Your task to perform on an android device: open app "Google Keep" (install if not already installed) Image 0: 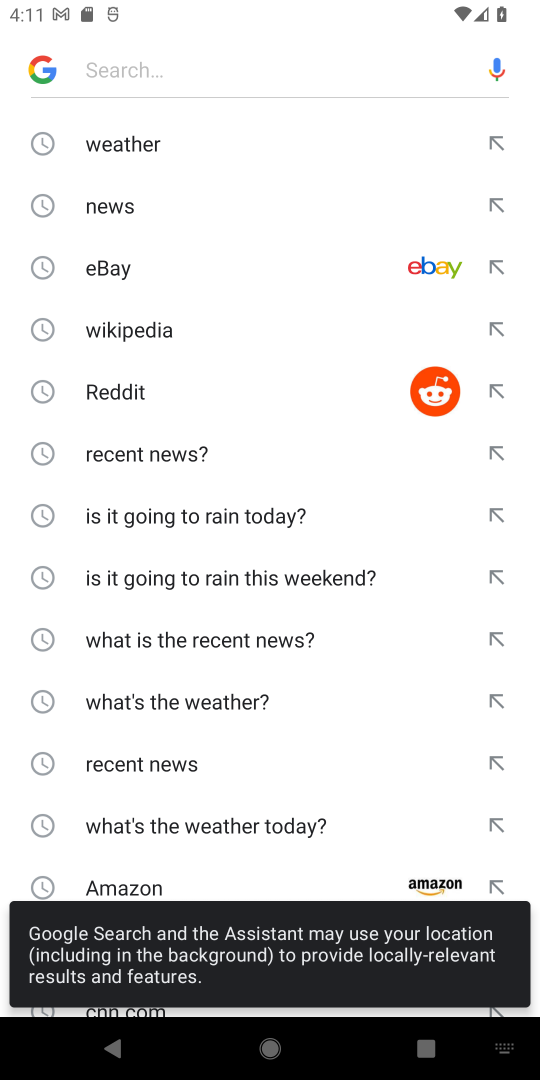
Step 0: press home button
Your task to perform on an android device: open app "Google Keep" (install if not already installed) Image 1: 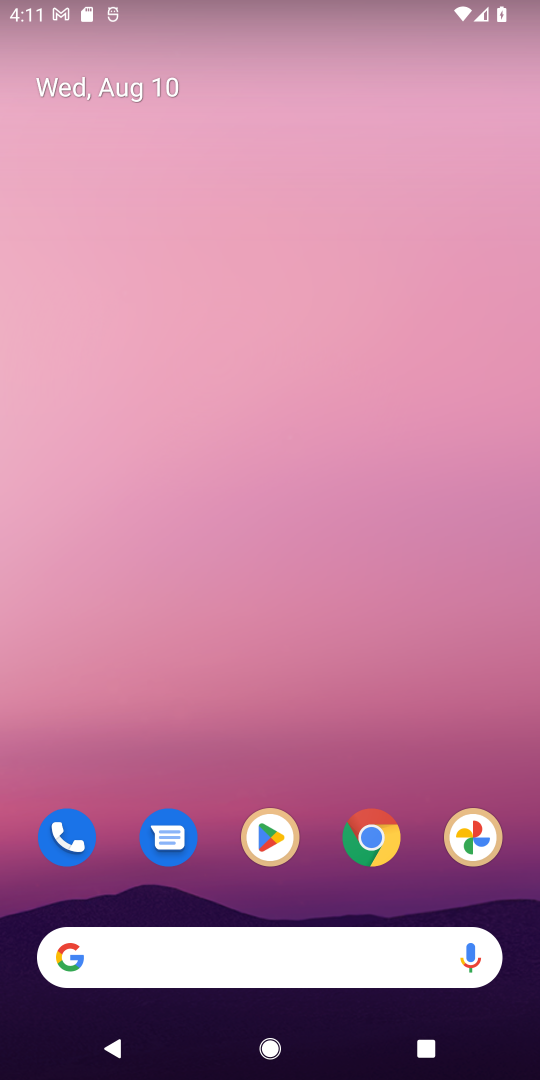
Step 1: click (282, 839)
Your task to perform on an android device: open app "Google Keep" (install if not already installed) Image 2: 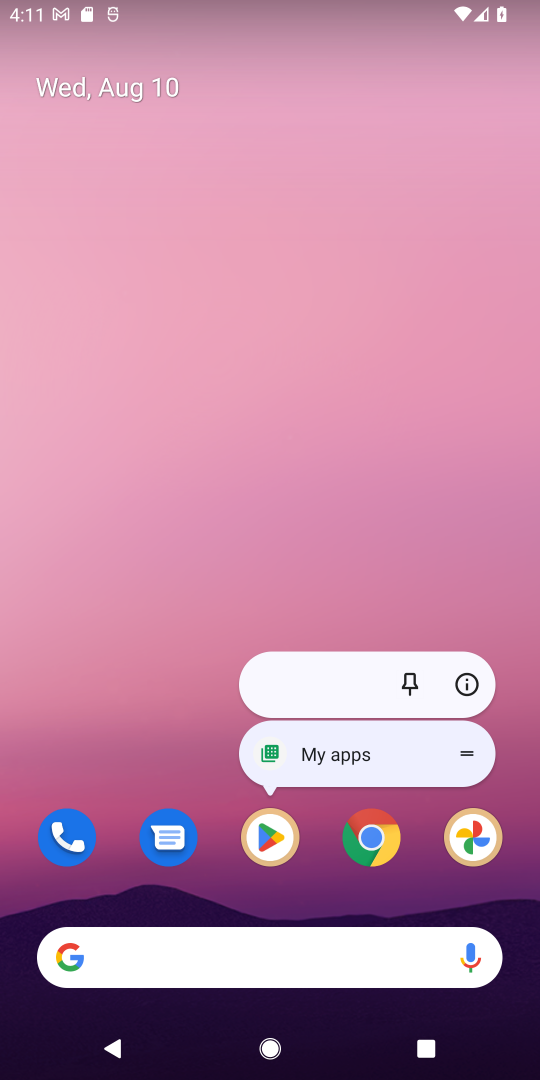
Step 2: click (282, 839)
Your task to perform on an android device: open app "Google Keep" (install if not already installed) Image 3: 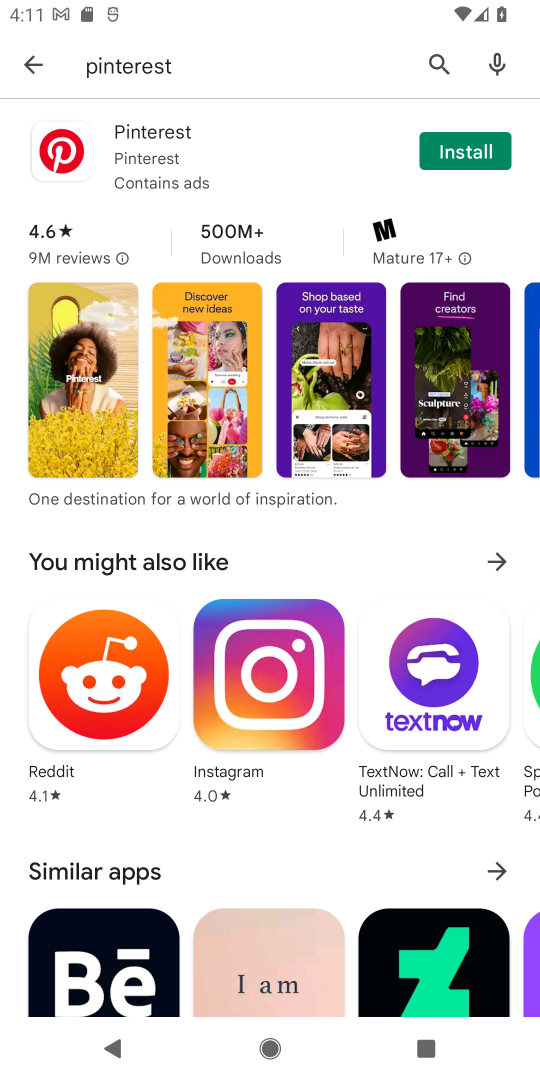
Step 3: click (437, 55)
Your task to perform on an android device: open app "Google Keep" (install if not already installed) Image 4: 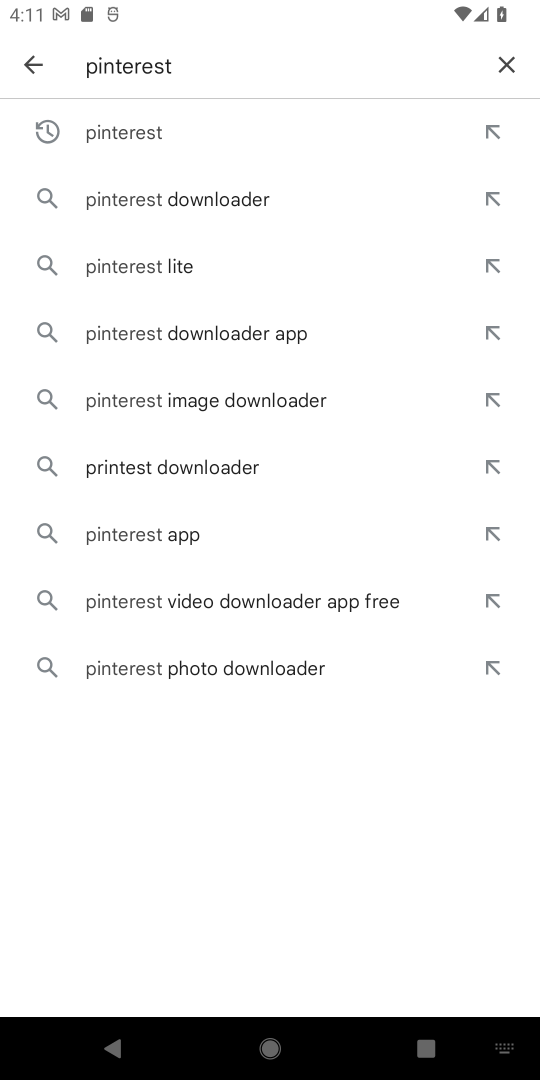
Step 4: click (500, 54)
Your task to perform on an android device: open app "Google Keep" (install if not already installed) Image 5: 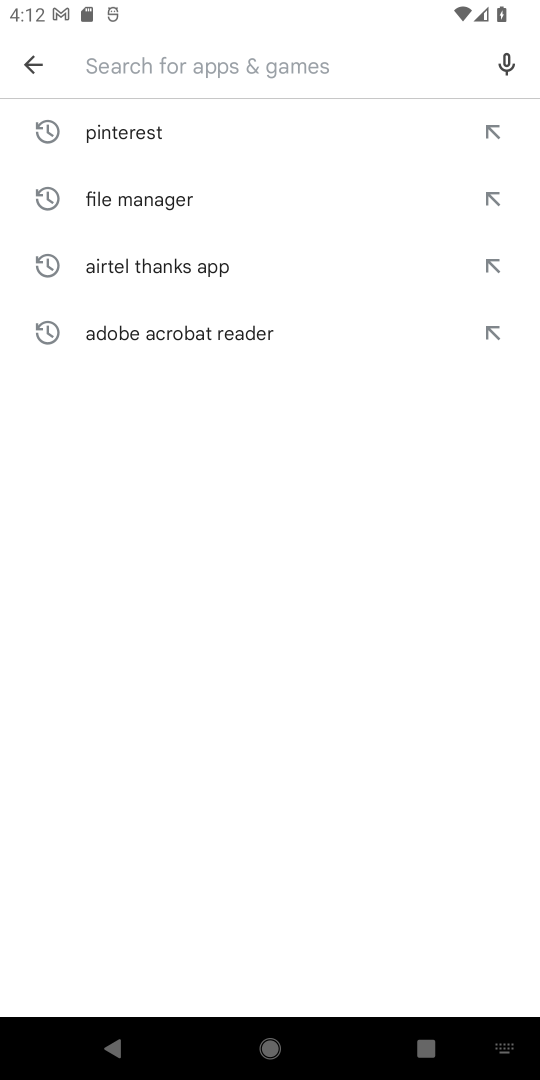
Step 5: type "Google Keep"
Your task to perform on an android device: open app "Google Keep" (install if not already installed) Image 6: 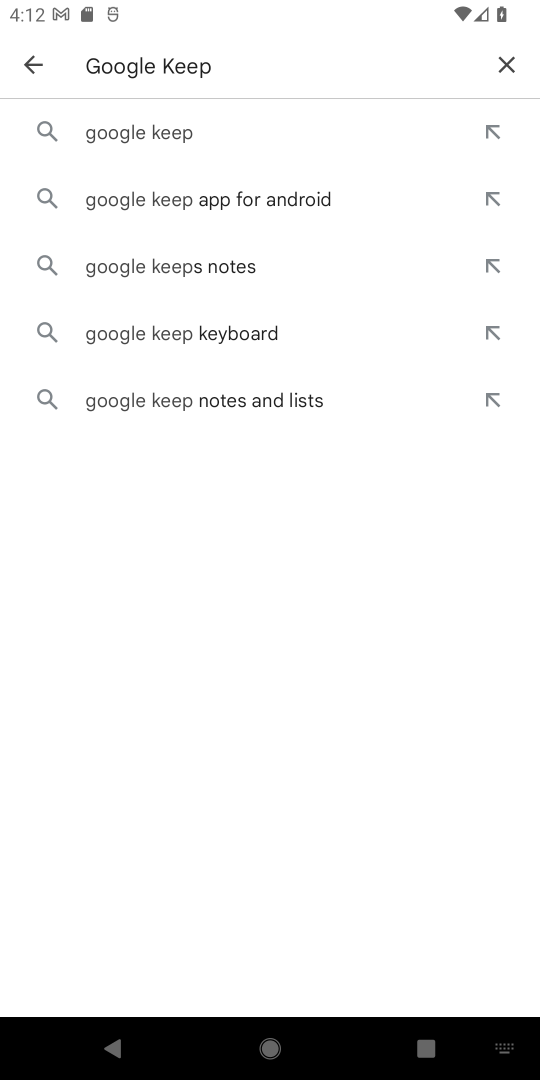
Step 6: click (175, 131)
Your task to perform on an android device: open app "Google Keep" (install if not already installed) Image 7: 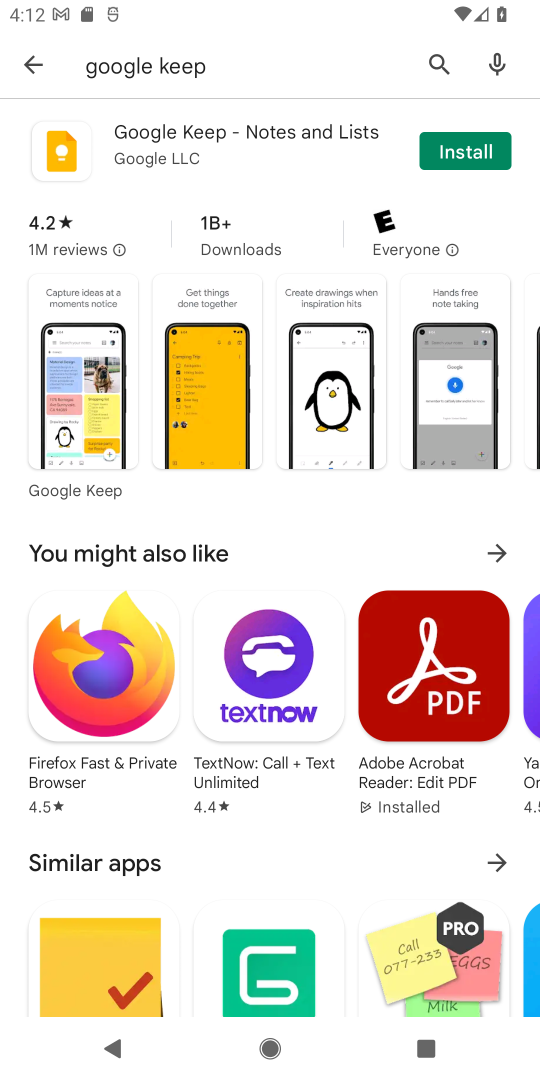
Step 7: click (480, 143)
Your task to perform on an android device: open app "Google Keep" (install if not already installed) Image 8: 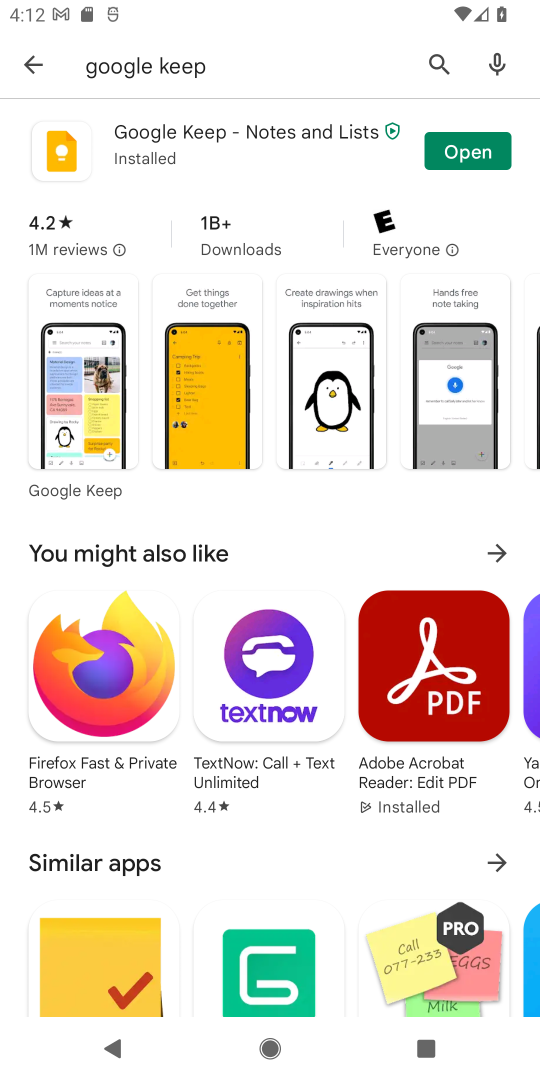
Step 8: click (492, 154)
Your task to perform on an android device: open app "Google Keep" (install if not already installed) Image 9: 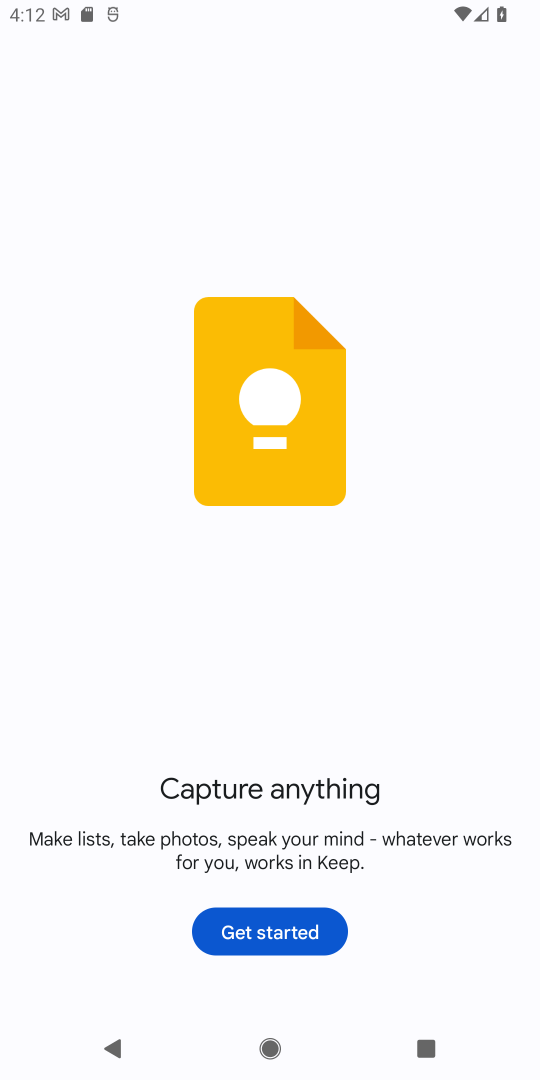
Step 9: task complete